Your task to perform on an android device: clear all cookies in the chrome app Image 0: 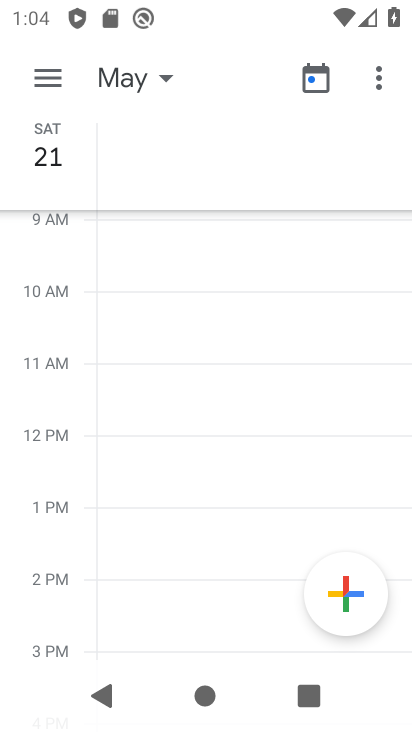
Step 0: press back button
Your task to perform on an android device: clear all cookies in the chrome app Image 1: 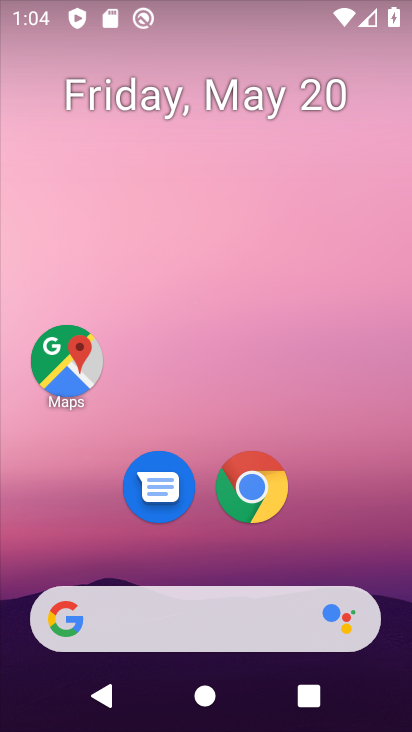
Step 1: drag from (329, 523) to (272, 108)
Your task to perform on an android device: clear all cookies in the chrome app Image 2: 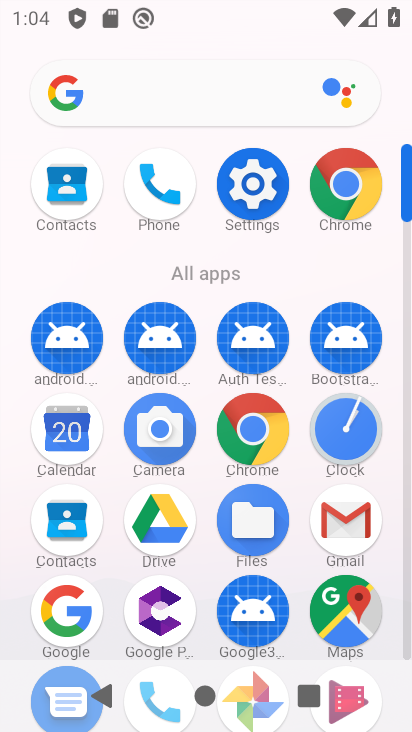
Step 2: drag from (7, 533) to (13, 210)
Your task to perform on an android device: clear all cookies in the chrome app Image 3: 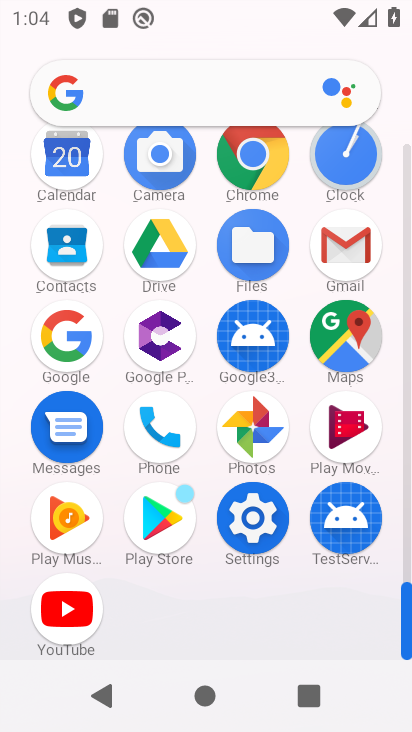
Step 3: drag from (6, 563) to (19, 253)
Your task to perform on an android device: clear all cookies in the chrome app Image 4: 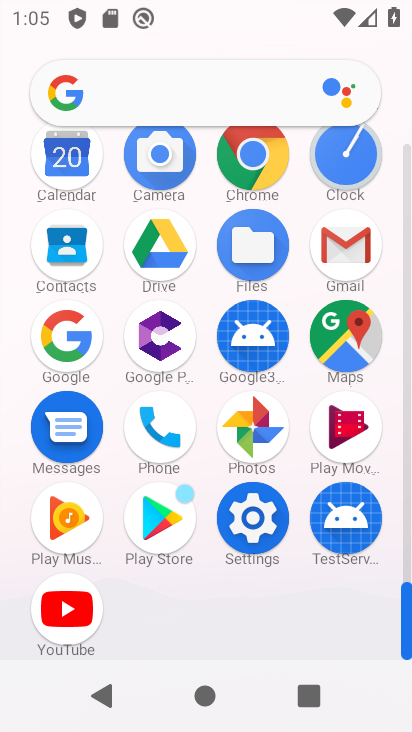
Step 4: click (249, 150)
Your task to perform on an android device: clear all cookies in the chrome app Image 5: 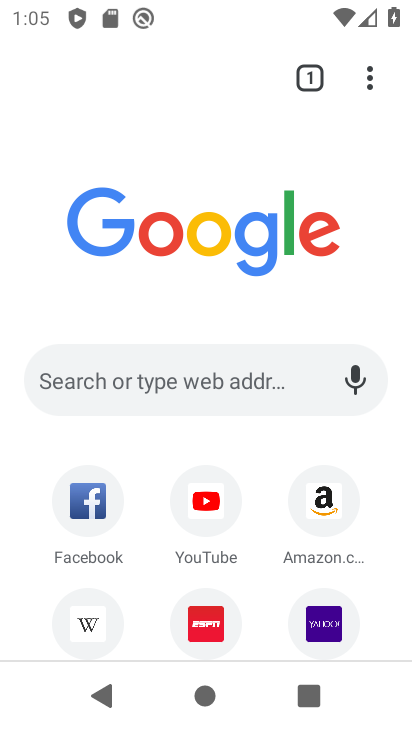
Step 5: drag from (367, 77) to (110, 548)
Your task to perform on an android device: clear all cookies in the chrome app Image 6: 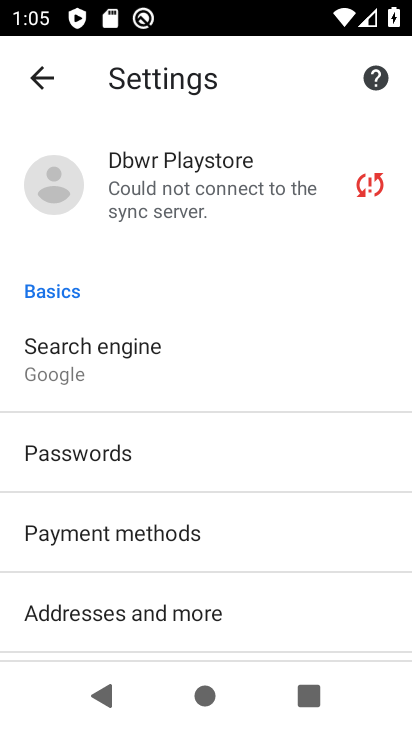
Step 6: drag from (246, 555) to (248, 209)
Your task to perform on an android device: clear all cookies in the chrome app Image 7: 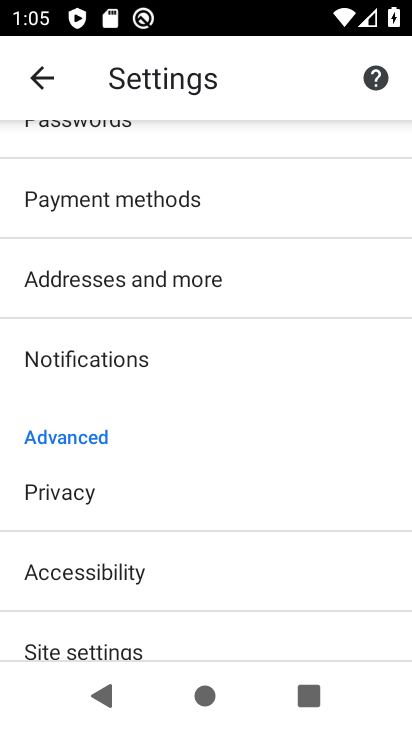
Step 7: drag from (233, 228) to (264, 603)
Your task to perform on an android device: clear all cookies in the chrome app Image 8: 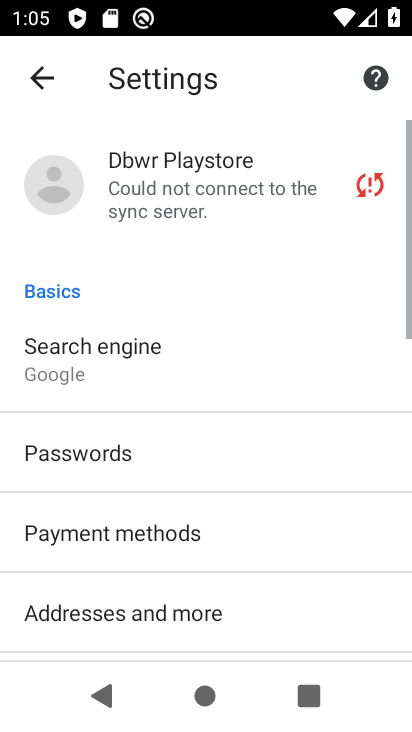
Step 8: drag from (265, 535) to (262, 148)
Your task to perform on an android device: clear all cookies in the chrome app Image 9: 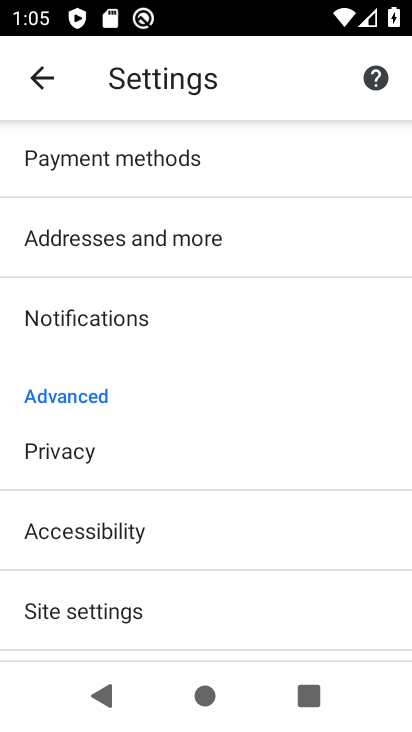
Step 9: click (125, 445)
Your task to perform on an android device: clear all cookies in the chrome app Image 10: 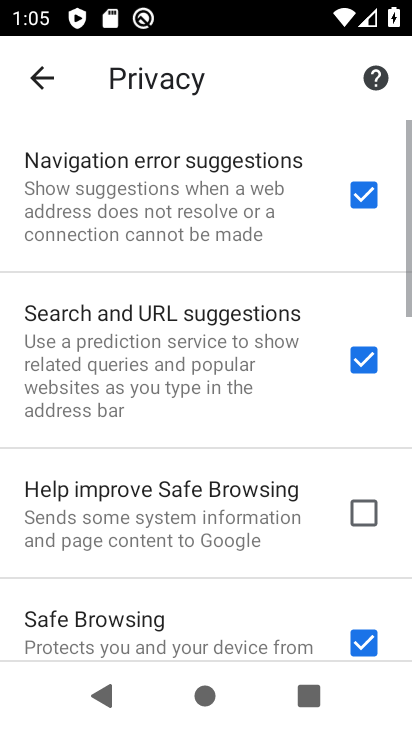
Step 10: drag from (196, 597) to (220, 117)
Your task to perform on an android device: clear all cookies in the chrome app Image 11: 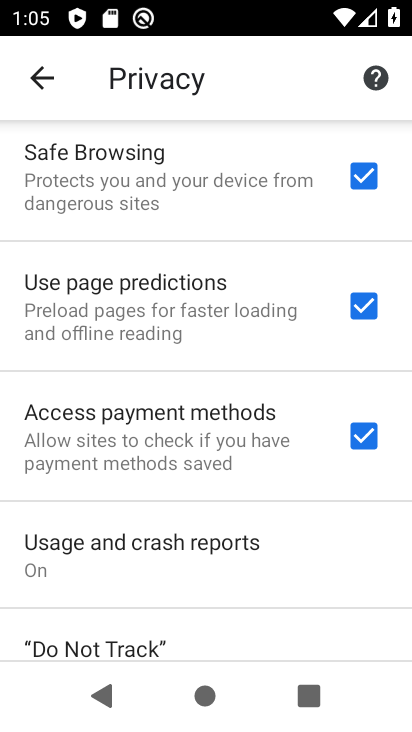
Step 11: drag from (189, 589) to (227, 121)
Your task to perform on an android device: clear all cookies in the chrome app Image 12: 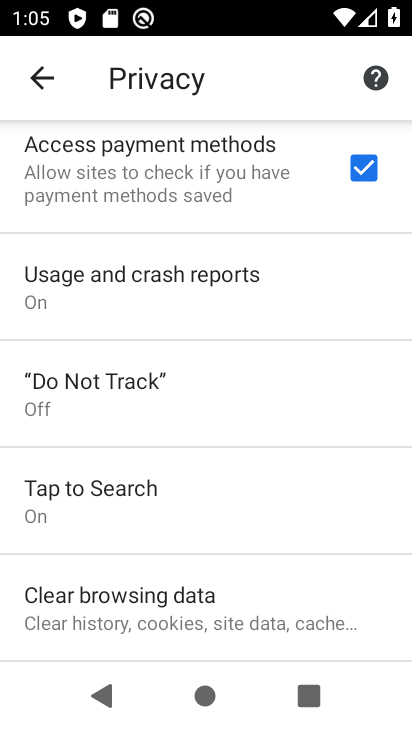
Step 12: click (180, 608)
Your task to perform on an android device: clear all cookies in the chrome app Image 13: 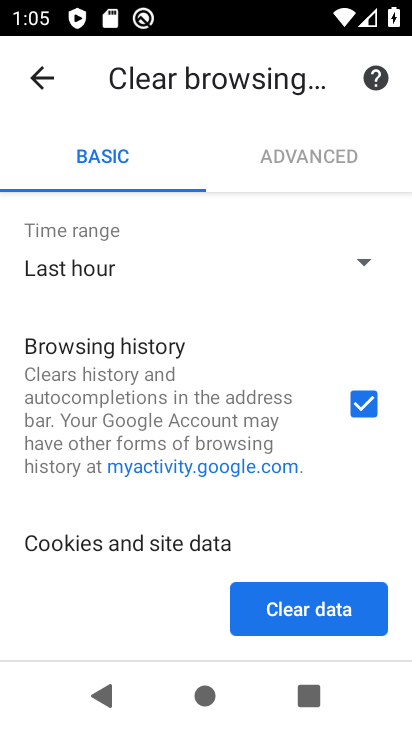
Step 13: drag from (163, 441) to (149, 220)
Your task to perform on an android device: clear all cookies in the chrome app Image 14: 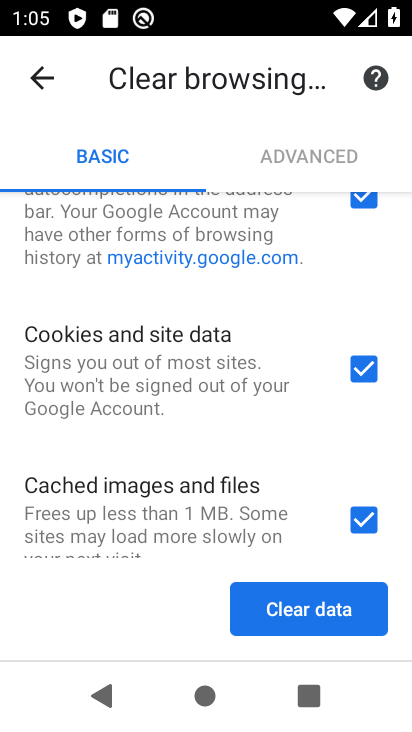
Step 14: click (355, 200)
Your task to perform on an android device: clear all cookies in the chrome app Image 15: 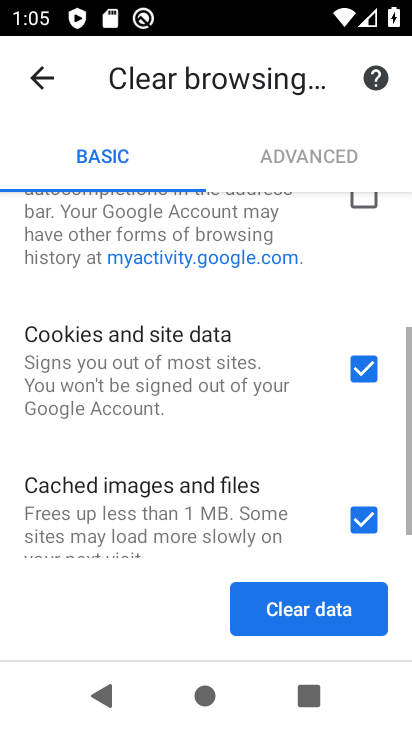
Step 15: click (347, 368)
Your task to perform on an android device: clear all cookies in the chrome app Image 16: 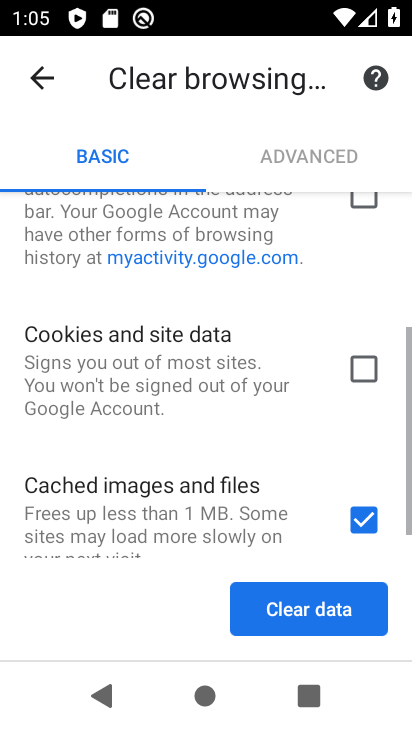
Step 16: drag from (221, 501) to (227, 163)
Your task to perform on an android device: clear all cookies in the chrome app Image 17: 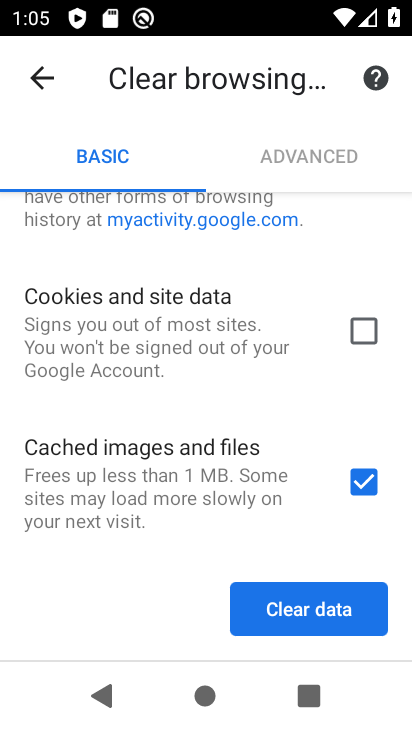
Step 17: drag from (249, 304) to (205, 532)
Your task to perform on an android device: clear all cookies in the chrome app Image 18: 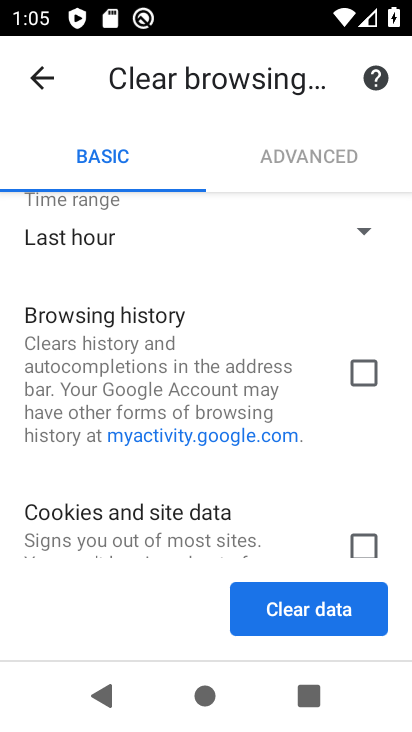
Step 18: drag from (168, 467) to (193, 222)
Your task to perform on an android device: clear all cookies in the chrome app Image 19: 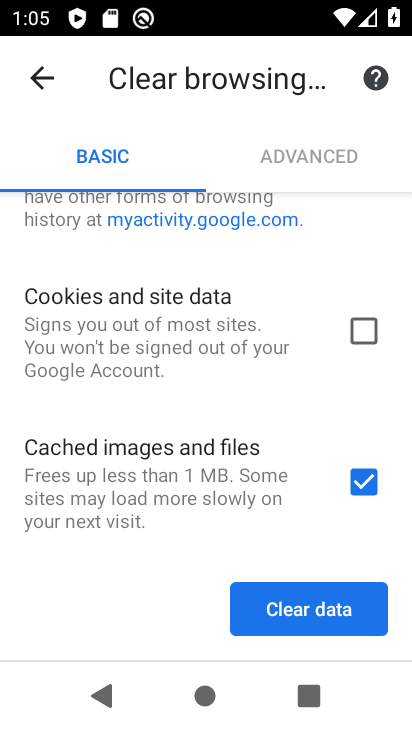
Step 19: click (351, 330)
Your task to perform on an android device: clear all cookies in the chrome app Image 20: 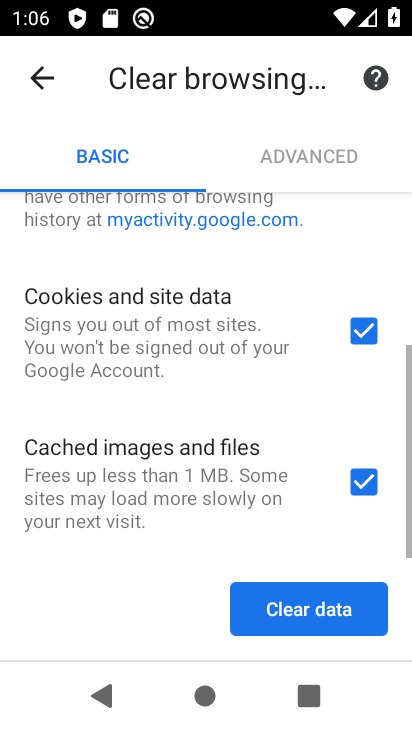
Step 20: click (363, 494)
Your task to perform on an android device: clear all cookies in the chrome app Image 21: 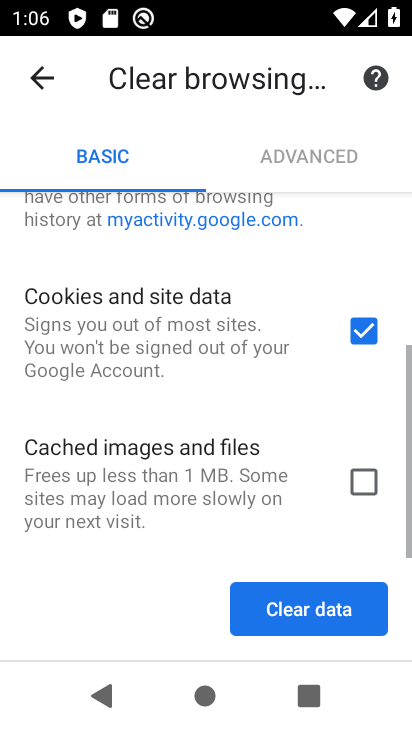
Step 21: click (300, 603)
Your task to perform on an android device: clear all cookies in the chrome app Image 22: 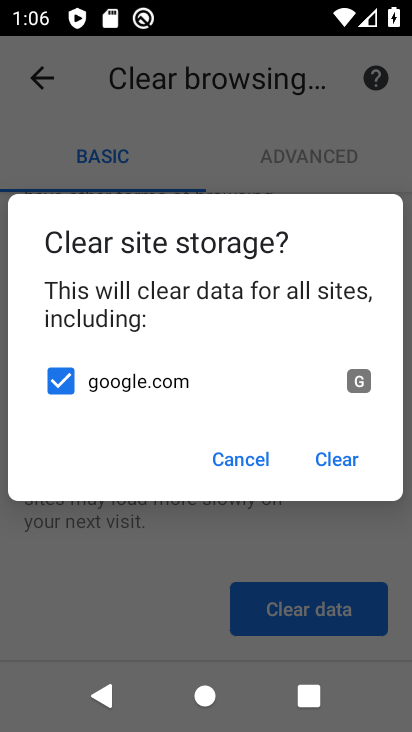
Step 22: click (353, 451)
Your task to perform on an android device: clear all cookies in the chrome app Image 23: 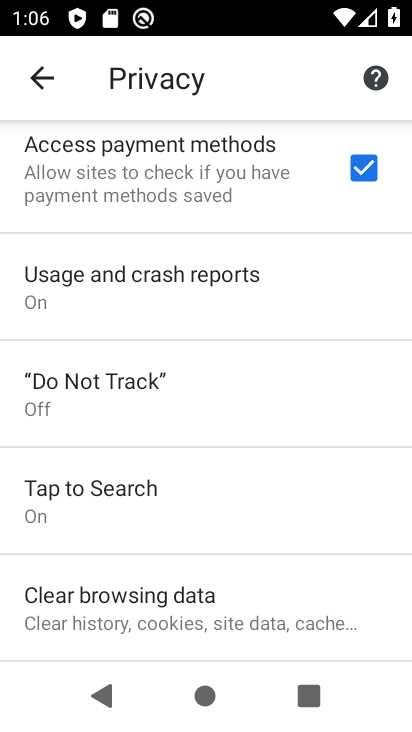
Step 23: task complete